Your task to perform on an android device: Show me recent news Image 0: 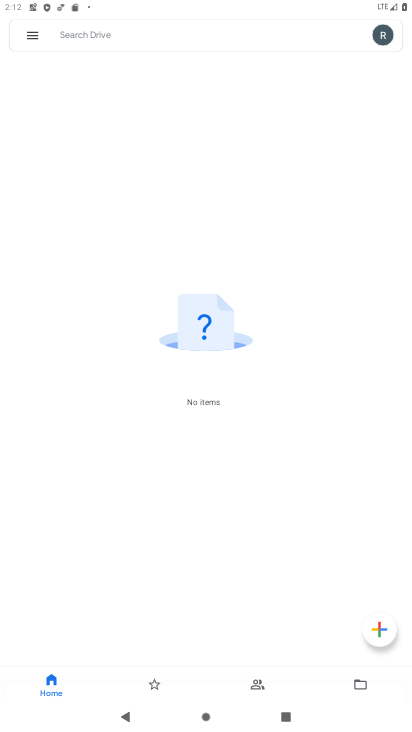
Step 0: press home button
Your task to perform on an android device: Show me recent news Image 1: 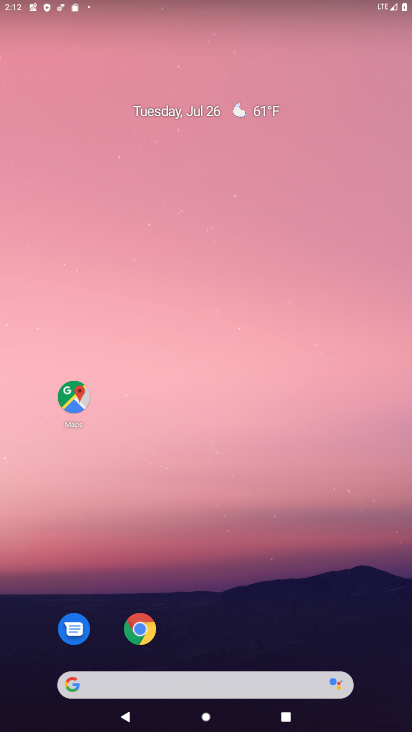
Step 1: task complete